Your task to perform on an android device: Open Android settings Image 0: 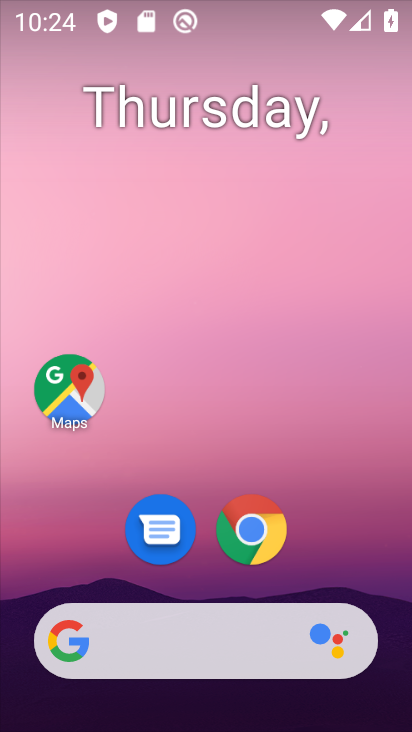
Step 0: drag from (359, 550) to (318, 165)
Your task to perform on an android device: Open Android settings Image 1: 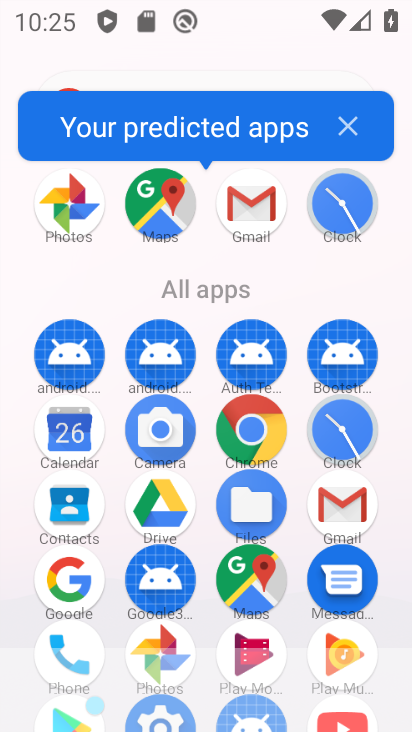
Step 1: click (349, 133)
Your task to perform on an android device: Open Android settings Image 2: 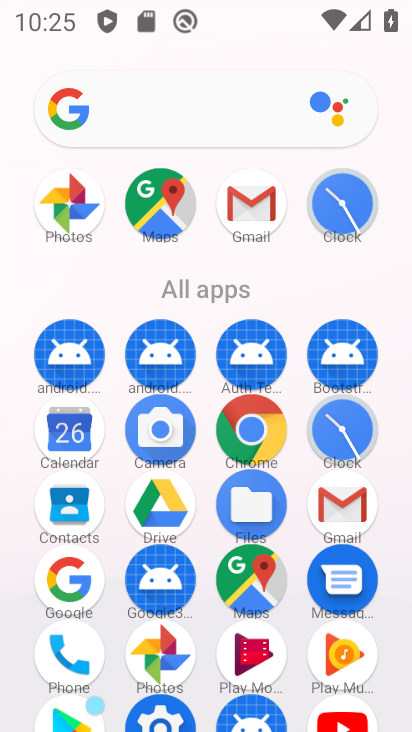
Step 2: drag from (295, 531) to (280, 282)
Your task to perform on an android device: Open Android settings Image 3: 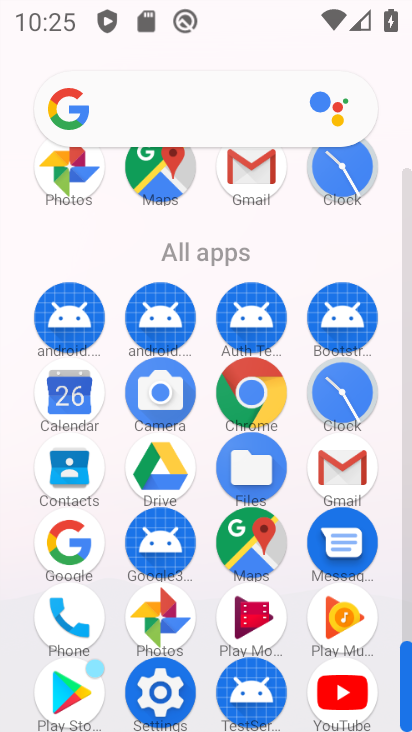
Step 3: click (164, 682)
Your task to perform on an android device: Open Android settings Image 4: 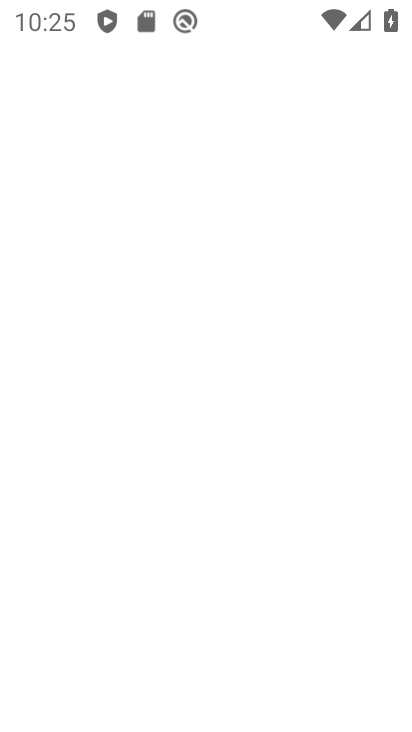
Step 4: task complete